Your task to perform on an android device: Open Amazon Image 0: 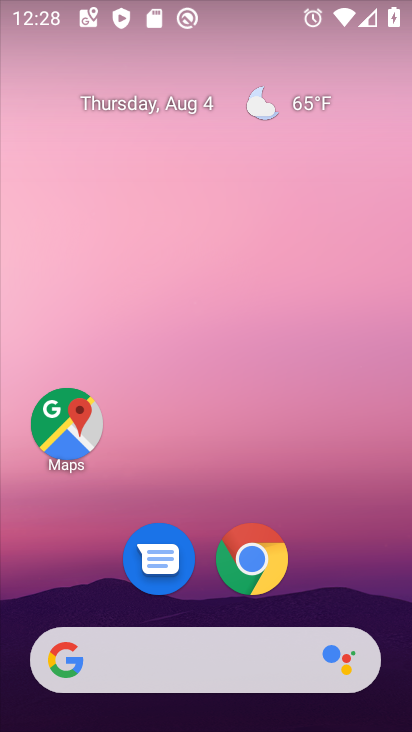
Step 0: drag from (178, 661) to (226, 92)
Your task to perform on an android device: Open Amazon Image 1: 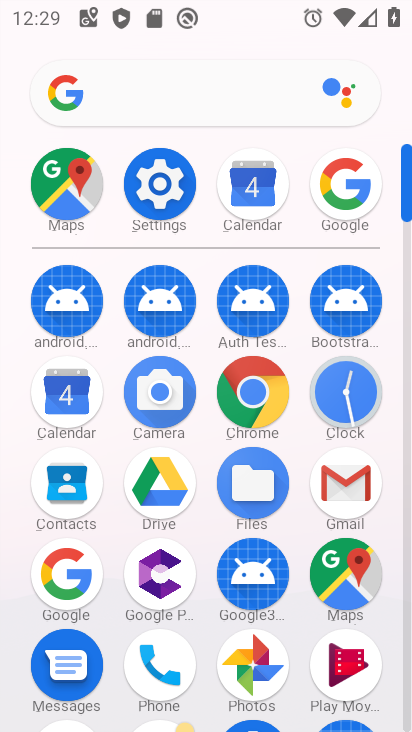
Step 1: click (252, 388)
Your task to perform on an android device: Open Amazon Image 2: 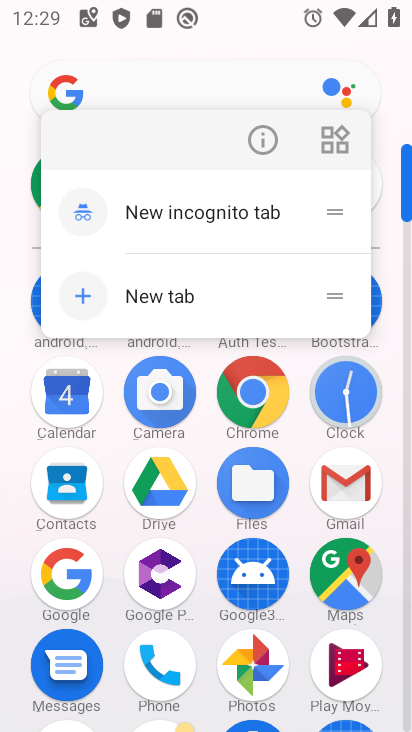
Step 2: click (252, 388)
Your task to perform on an android device: Open Amazon Image 3: 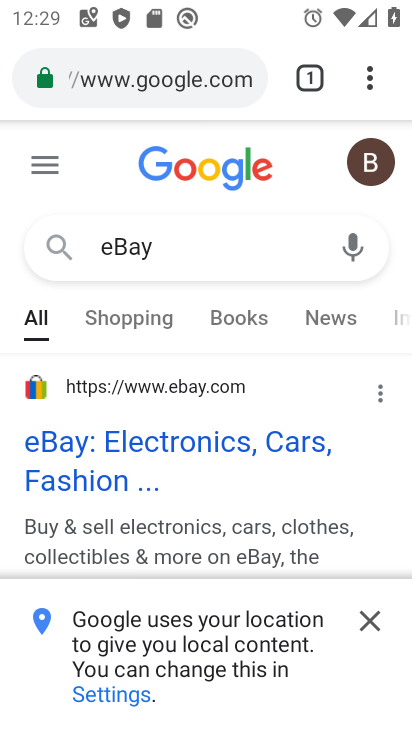
Step 3: click (237, 88)
Your task to perform on an android device: Open Amazon Image 4: 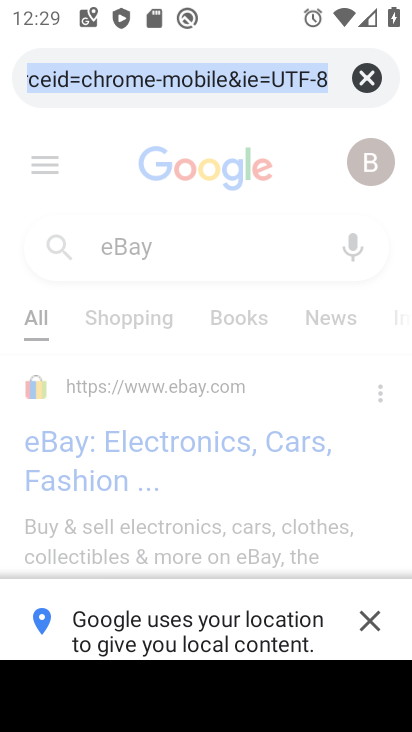
Step 4: type "Amazon"
Your task to perform on an android device: Open Amazon Image 5: 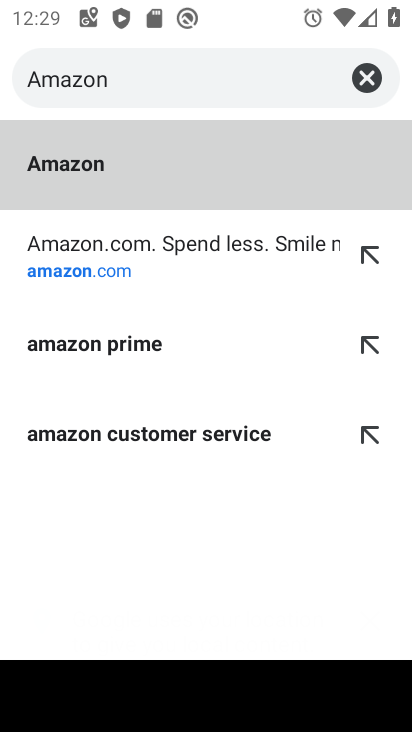
Step 5: click (98, 167)
Your task to perform on an android device: Open Amazon Image 6: 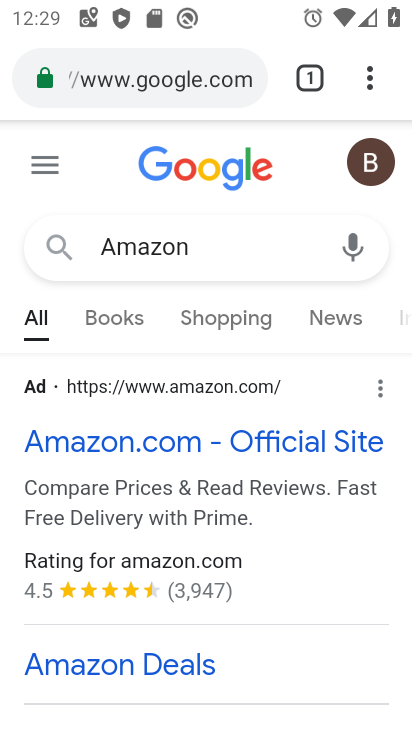
Step 6: click (169, 442)
Your task to perform on an android device: Open Amazon Image 7: 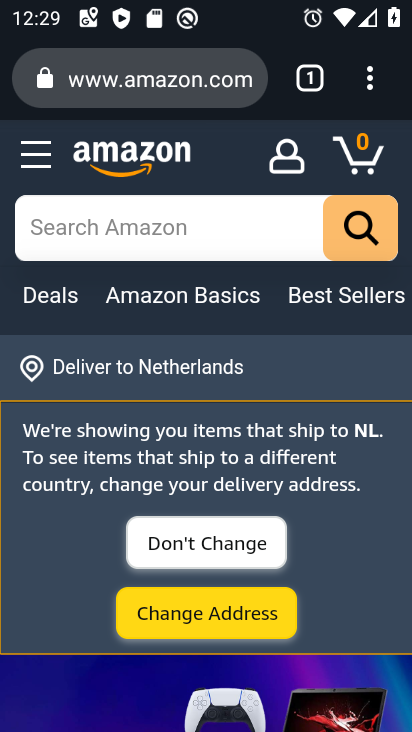
Step 7: task complete